Your task to perform on an android device: Go to Yahoo.com Image 0: 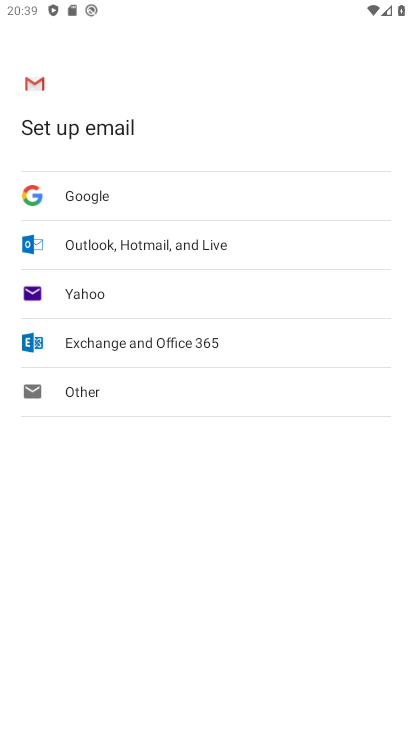
Step 0: press home button
Your task to perform on an android device: Go to Yahoo.com Image 1: 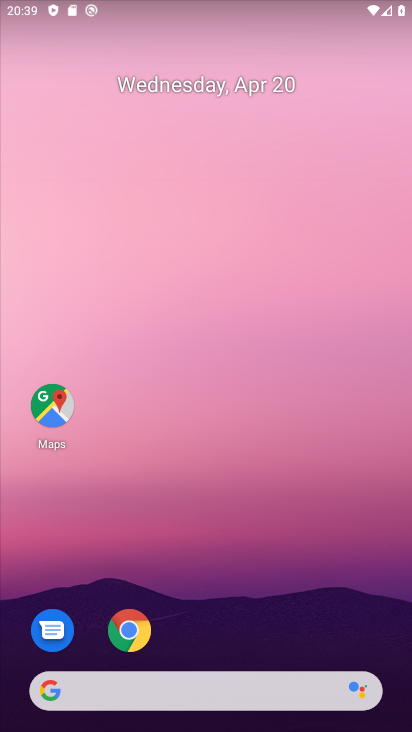
Step 1: click (113, 635)
Your task to perform on an android device: Go to Yahoo.com Image 2: 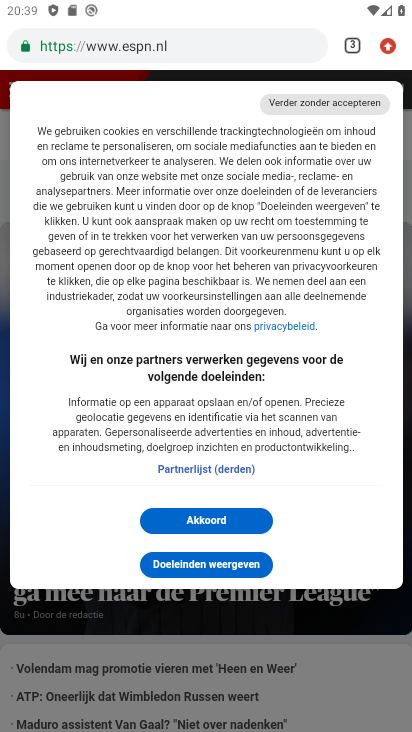
Step 2: click (359, 43)
Your task to perform on an android device: Go to Yahoo.com Image 3: 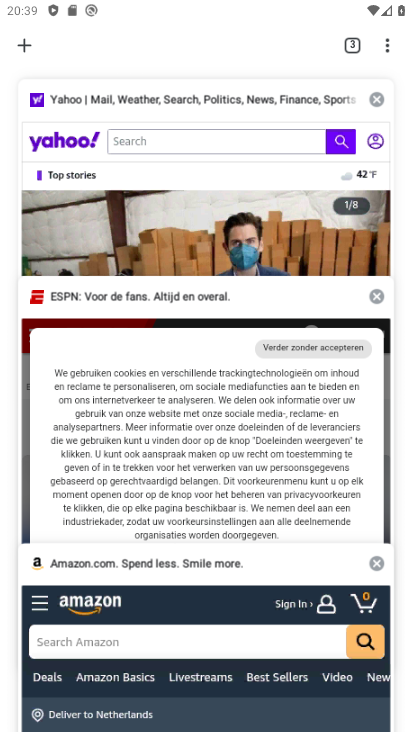
Step 3: click (205, 191)
Your task to perform on an android device: Go to Yahoo.com Image 4: 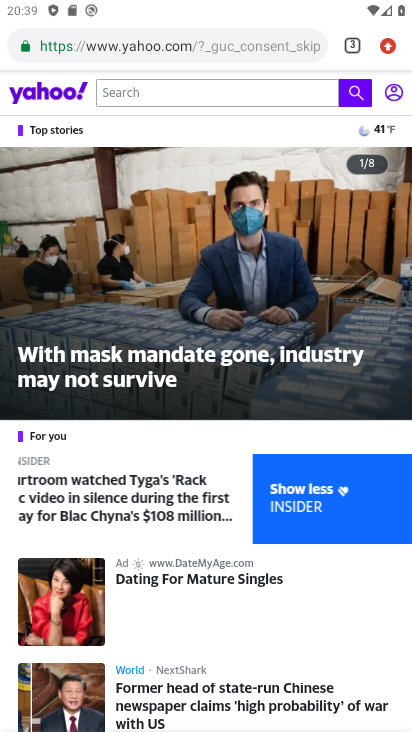
Step 4: task complete